Your task to perform on an android device: turn on improve location accuracy Image 0: 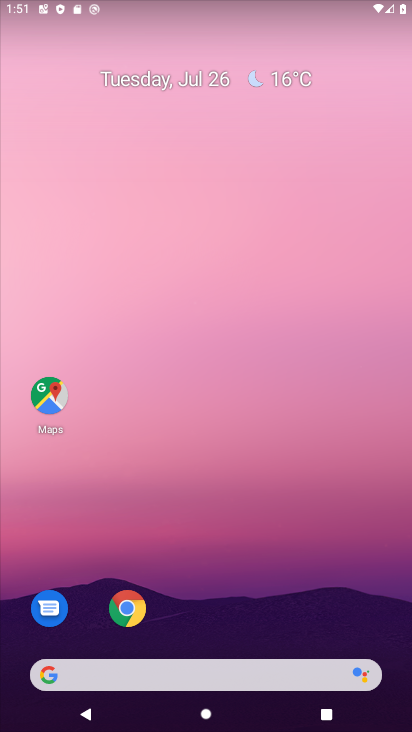
Step 0: task complete